Your task to perform on an android device: see sites visited before in the chrome app Image 0: 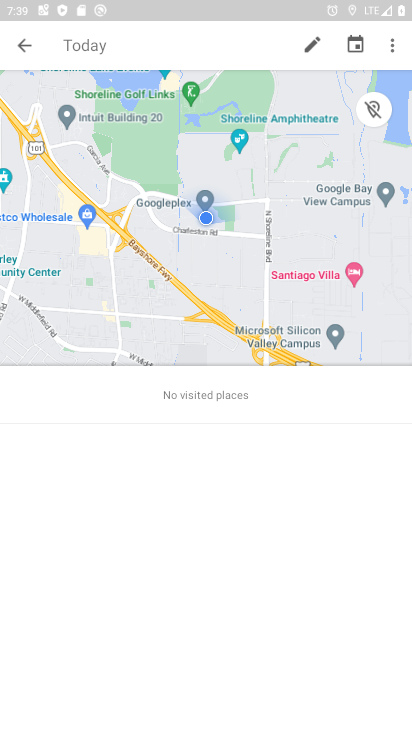
Step 0: click (133, 625)
Your task to perform on an android device: see sites visited before in the chrome app Image 1: 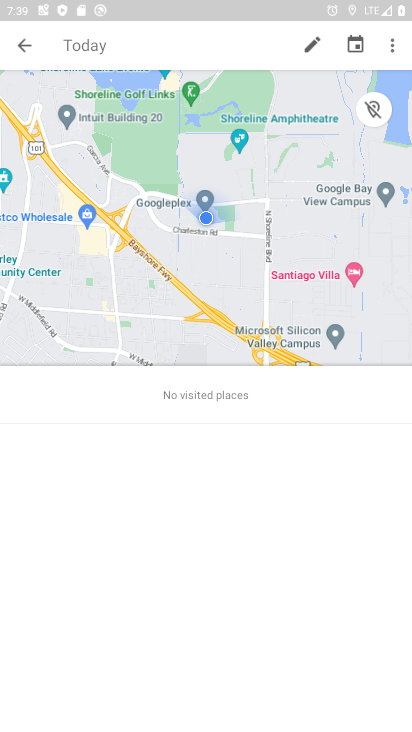
Step 1: press home button
Your task to perform on an android device: see sites visited before in the chrome app Image 2: 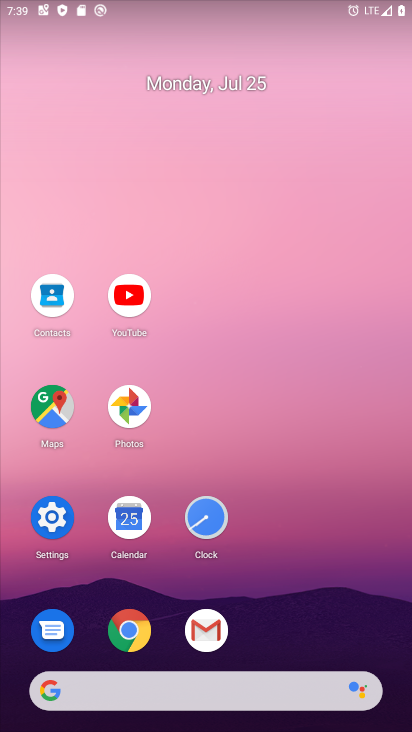
Step 2: click (132, 641)
Your task to perform on an android device: see sites visited before in the chrome app Image 3: 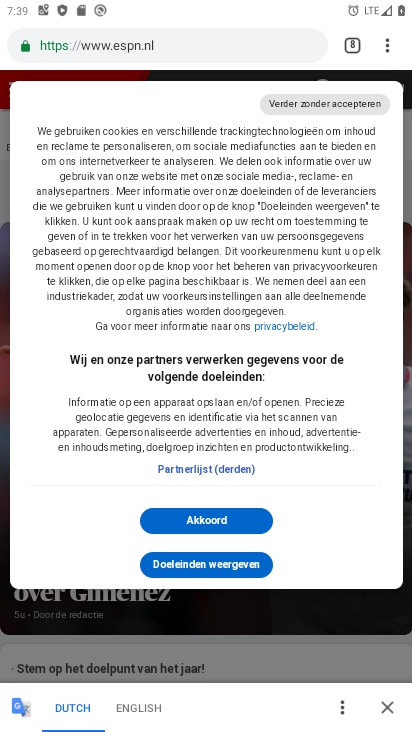
Step 3: click (395, 44)
Your task to perform on an android device: see sites visited before in the chrome app Image 4: 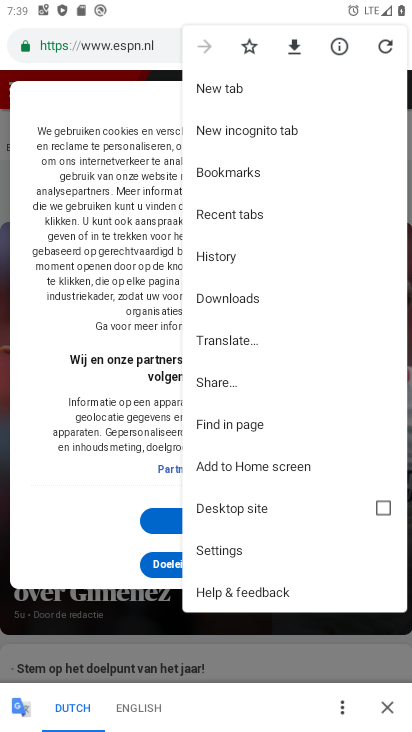
Step 4: click (225, 258)
Your task to perform on an android device: see sites visited before in the chrome app Image 5: 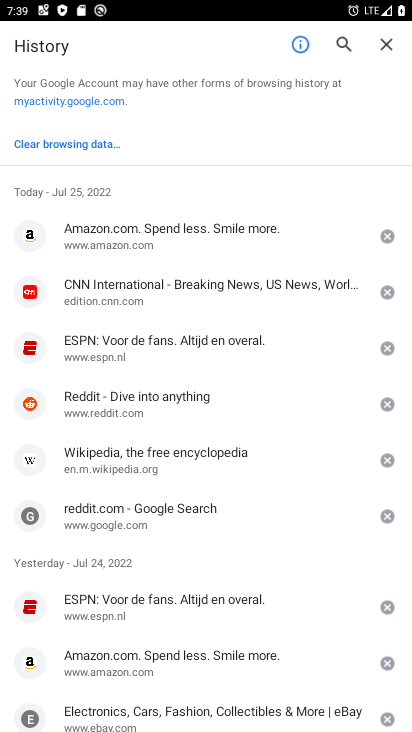
Step 5: task complete